Your task to perform on an android device: create a new album in the google photos Image 0: 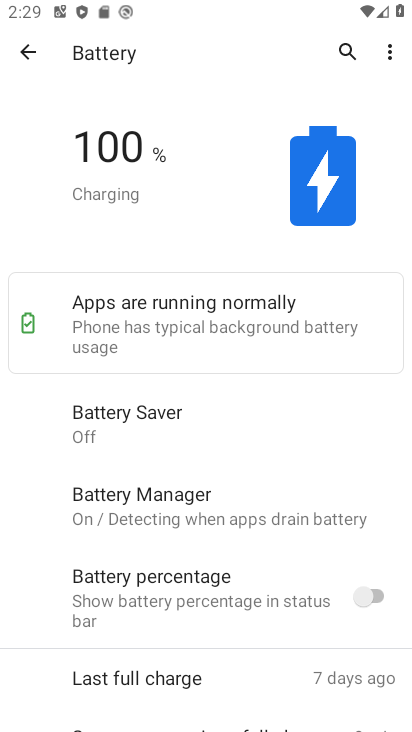
Step 0: press home button
Your task to perform on an android device: create a new album in the google photos Image 1: 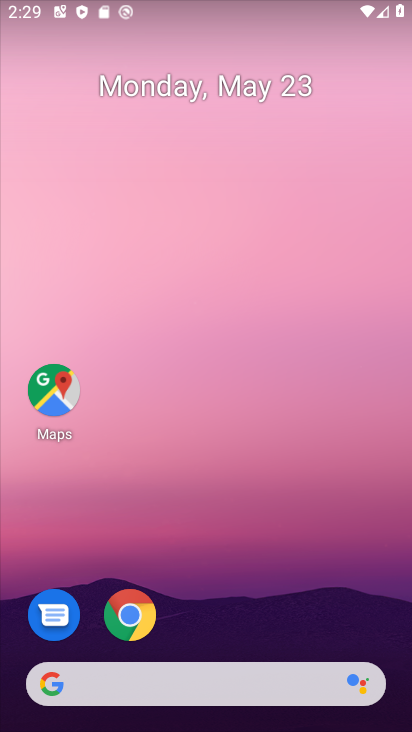
Step 1: drag from (368, 629) to (380, 173)
Your task to perform on an android device: create a new album in the google photos Image 2: 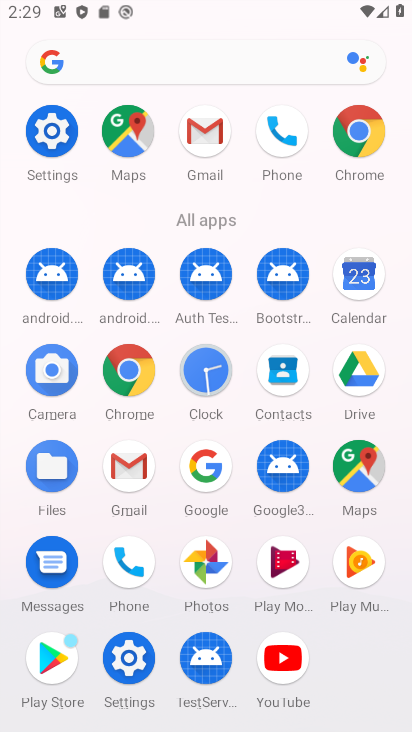
Step 2: click (211, 577)
Your task to perform on an android device: create a new album in the google photos Image 3: 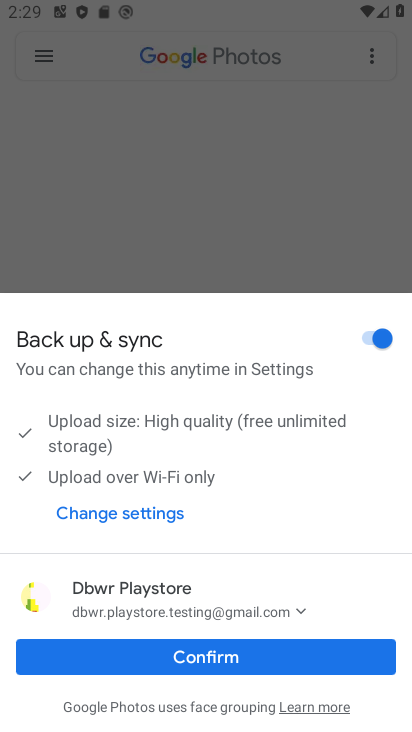
Step 3: click (198, 658)
Your task to perform on an android device: create a new album in the google photos Image 4: 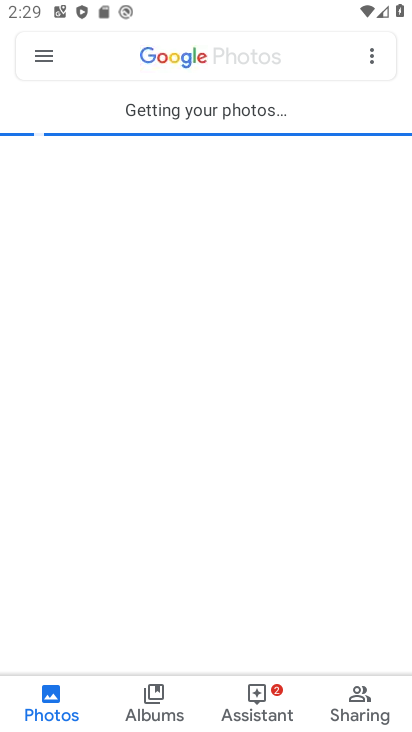
Step 4: click (156, 708)
Your task to perform on an android device: create a new album in the google photos Image 5: 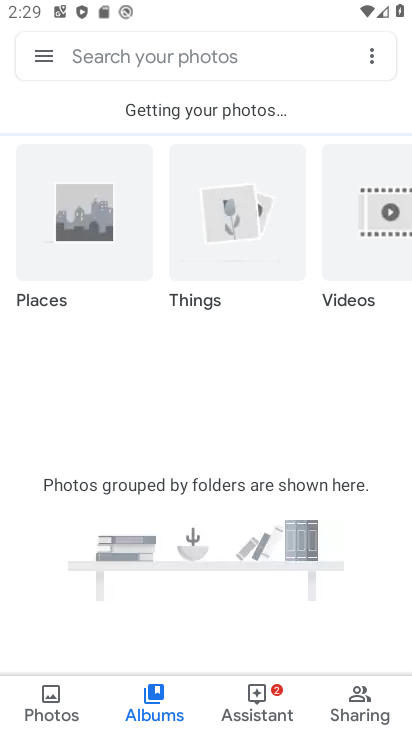
Step 5: drag from (272, 511) to (285, 256)
Your task to perform on an android device: create a new album in the google photos Image 6: 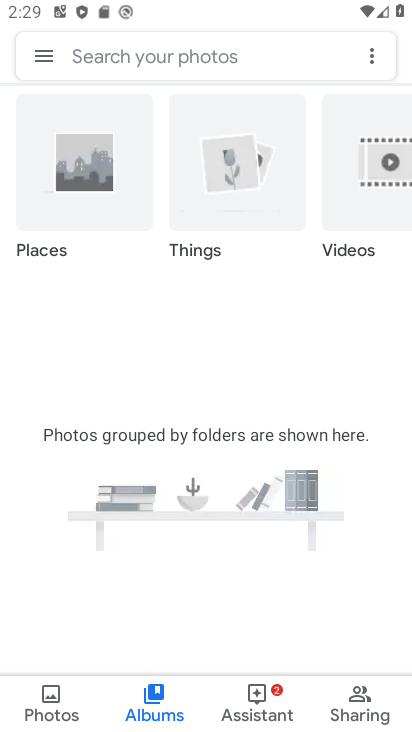
Step 6: drag from (259, 519) to (288, 348)
Your task to perform on an android device: create a new album in the google photos Image 7: 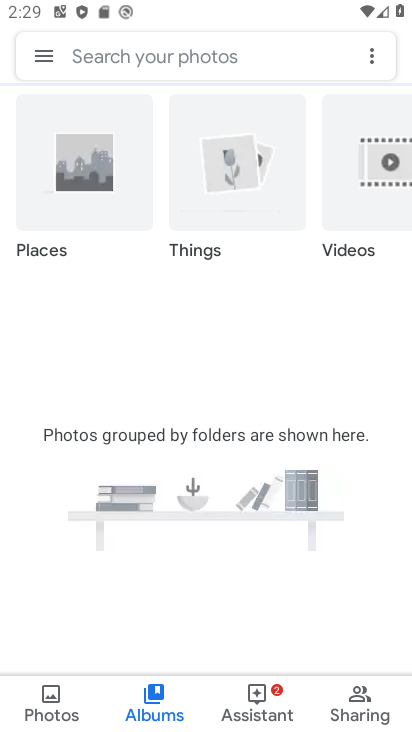
Step 7: click (369, 51)
Your task to perform on an android device: create a new album in the google photos Image 8: 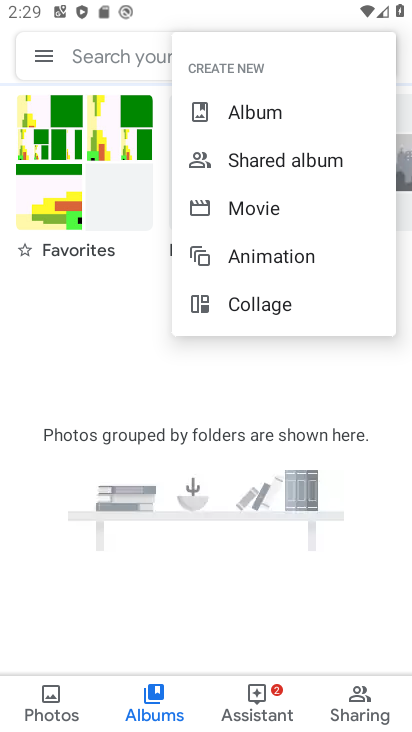
Step 8: click (290, 119)
Your task to perform on an android device: create a new album in the google photos Image 9: 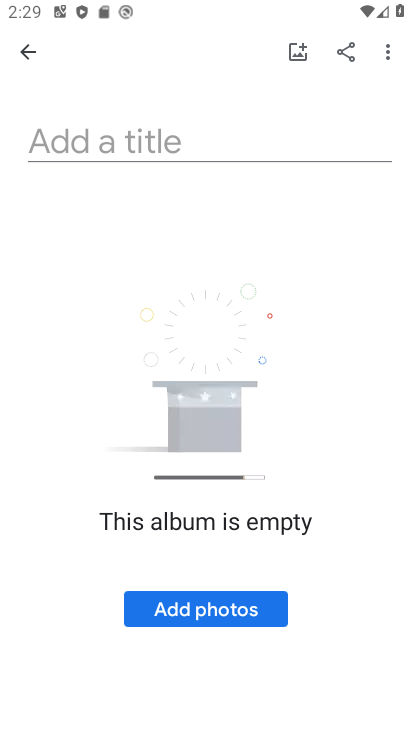
Step 9: click (150, 142)
Your task to perform on an android device: create a new album in the google photos Image 10: 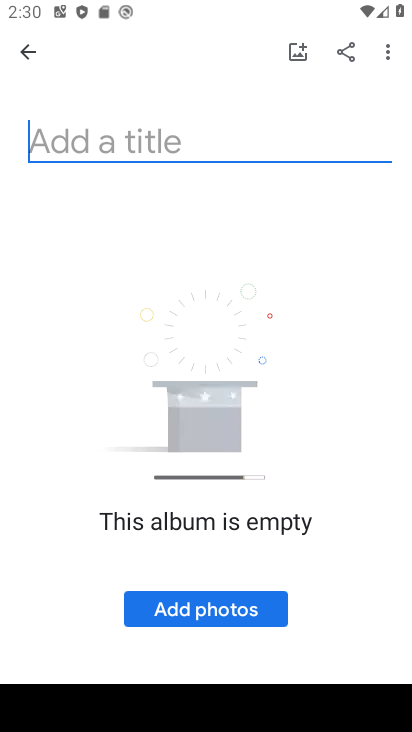
Step 10: type "my love"
Your task to perform on an android device: create a new album in the google photos Image 11: 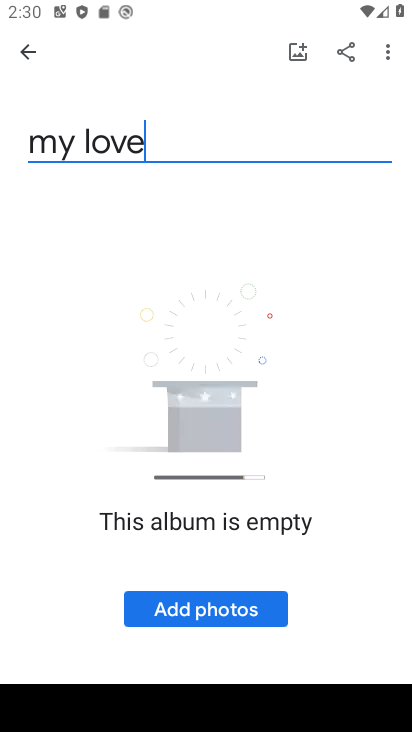
Step 11: click (200, 620)
Your task to perform on an android device: create a new album in the google photos Image 12: 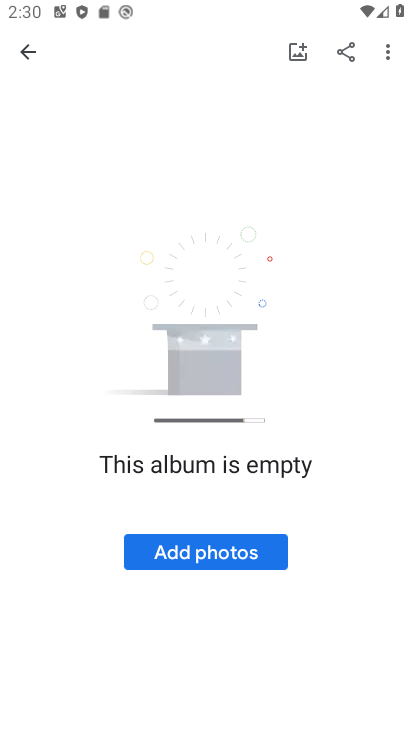
Step 12: click (204, 561)
Your task to perform on an android device: create a new album in the google photos Image 13: 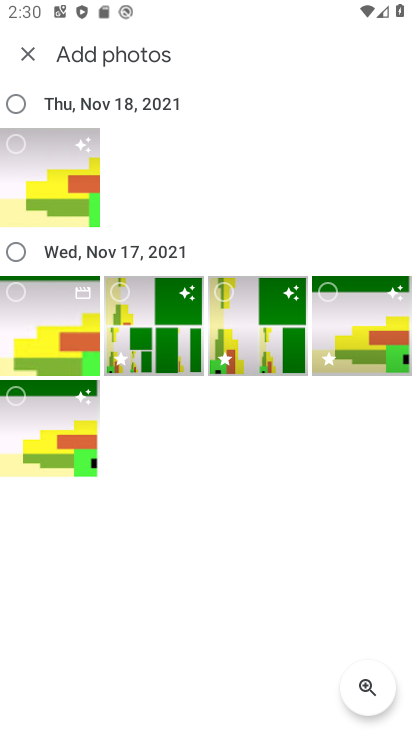
Step 13: click (38, 168)
Your task to perform on an android device: create a new album in the google photos Image 14: 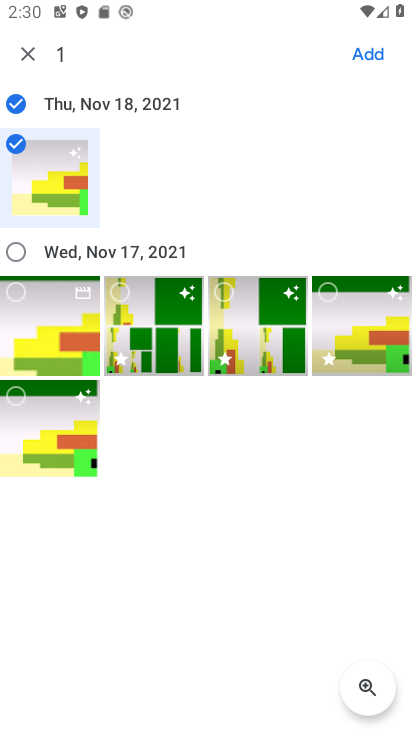
Step 14: click (370, 52)
Your task to perform on an android device: create a new album in the google photos Image 15: 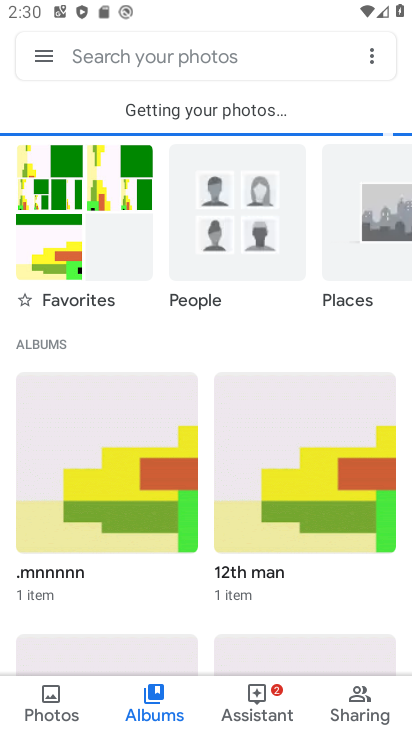
Step 15: task complete